Your task to perform on an android device: open the mobile data screen to see how much data has been used Image 0: 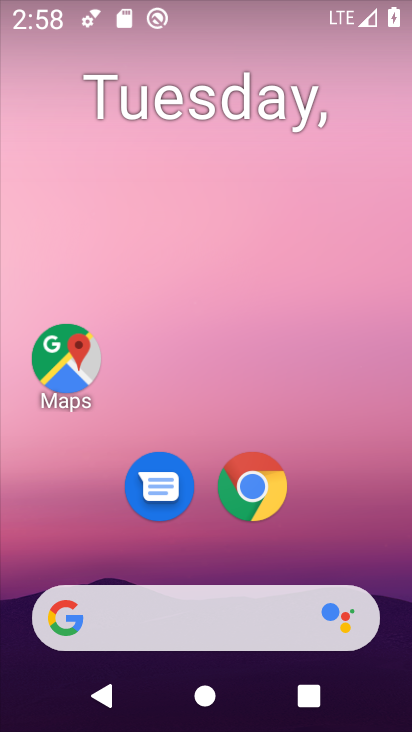
Step 0: press home button
Your task to perform on an android device: open the mobile data screen to see how much data has been used Image 1: 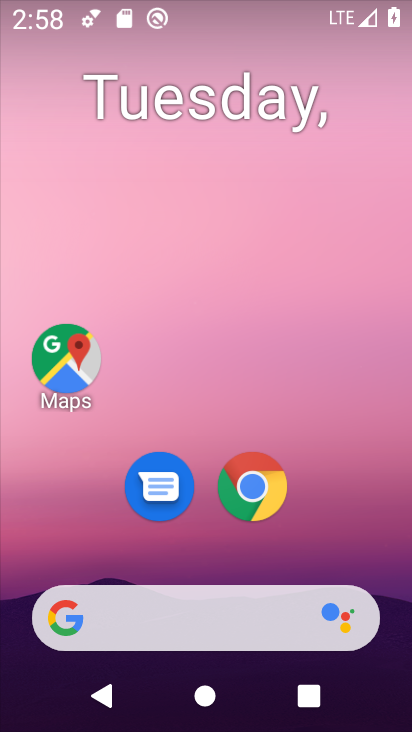
Step 1: drag from (336, 529) to (355, 70)
Your task to perform on an android device: open the mobile data screen to see how much data has been used Image 2: 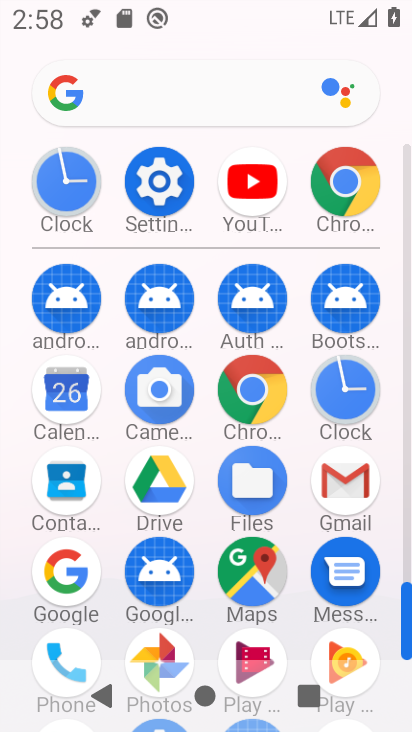
Step 2: click (168, 193)
Your task to perform on an android device: open the mobile data screen to see how much data has been used Image 3: 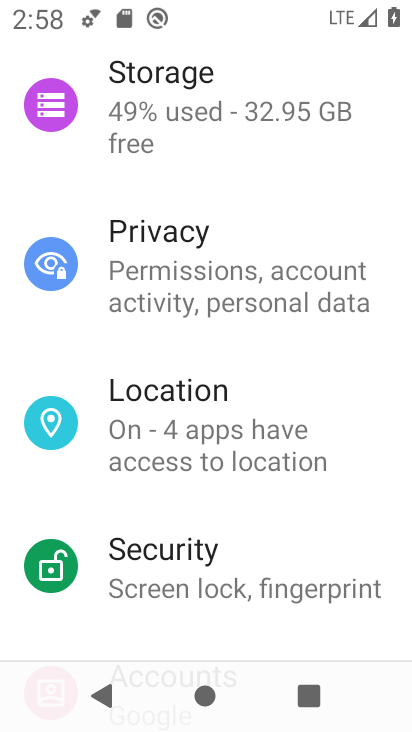
Step 3: drag from (353, 189) to (359, 335)
Your task to perform on an android device: open the mobile data screen to see how much data has been used Image 4: 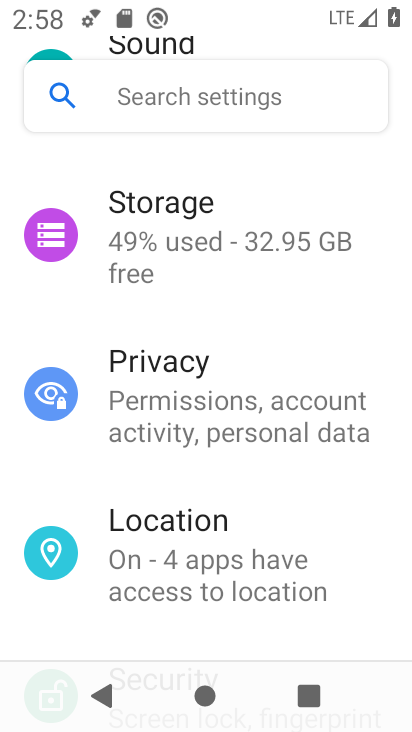
Step 4: drag from (359, 199) to (367, 363)
Your task to perform on an android device: open the mobile data screen to see how much data has been used Image 5: 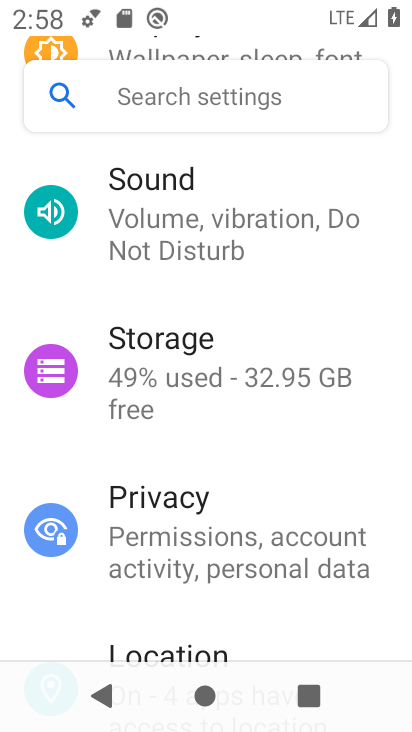
Step 5: drag from (377, 177) to (378, 341)
Your task to perform on an android device: open the mobile data screen to see how much data has been used Image 6: 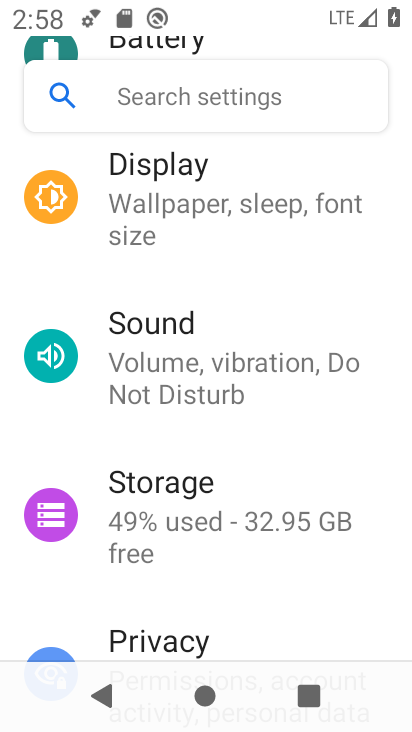
Step 6: drag from (376, 174) to (376, 329)
Your task to perform on an android device: open the mobile data screen to see how much data has been used Image 7: 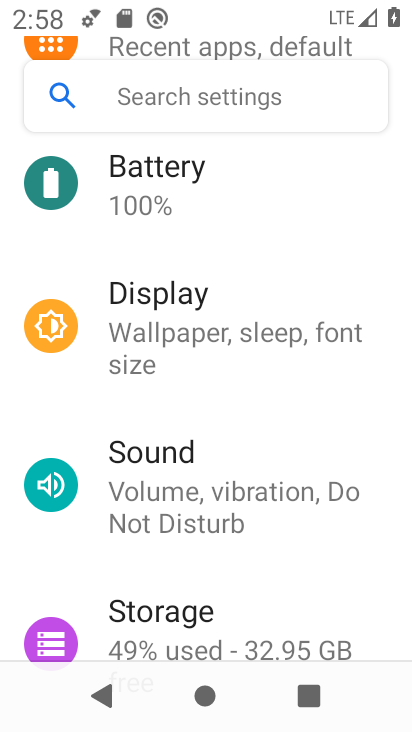
Step 7: drag from (363, 187) to (367, 356)
Your task to perform on an android device: open the mobile data screen to see how much data has been used Image 8: 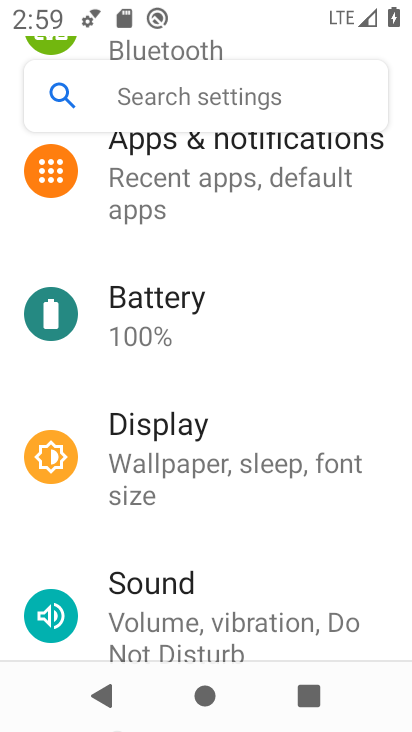
Step 8: drag from (333, 241) to (335, 376)
Your task to perform on an android device: open the mobile data screen to see how much data has been used Image 9: 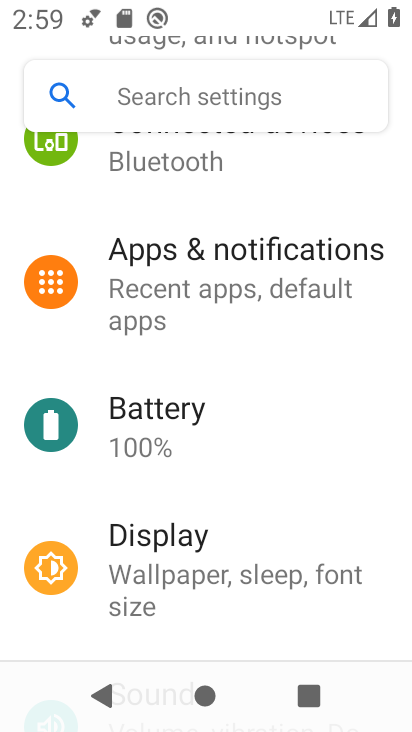
Step 9: drag from (321, 170) to (342, 305)
Your task to perform on an android device: open the mobile data screen to see how much data has been used Image 10: 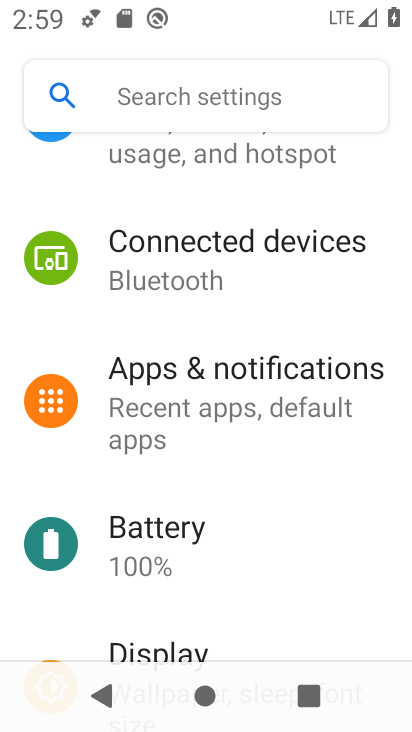
Step 10: drag from (362, 161) to (369, 323)
Your task to perform on an android device: open the mobile data screen to see how much data has been used Image 11: 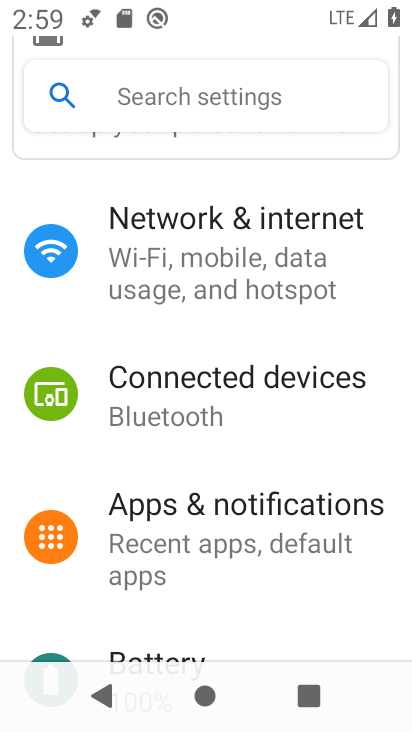
Step 11: click (210, 248)
Your task to perform on an android device: open the mobile data screen to see how much data has been used Image 12: 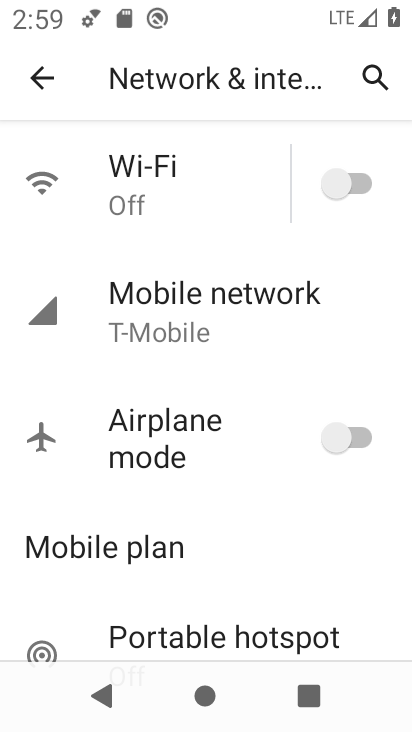
Step 12: click (196, 300)
Your task to perform on an android device: open the mobile data screen to see how much data has been used Image 13: 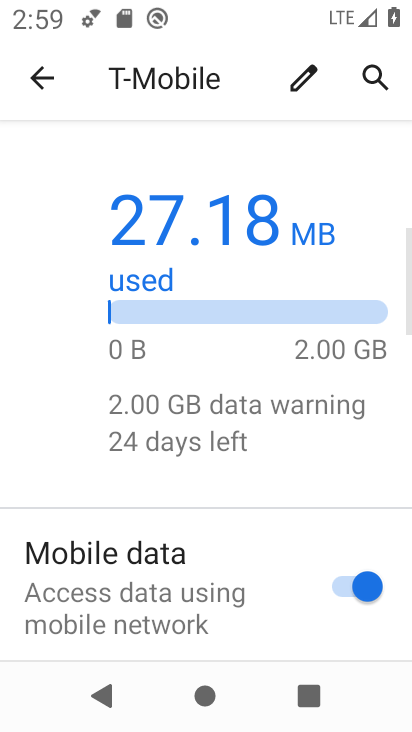
Step 13: drag from (243, 491) to (242, 382)
Your task to perform on an android device: open the mobile data screen to see how much data has been used Image 14: 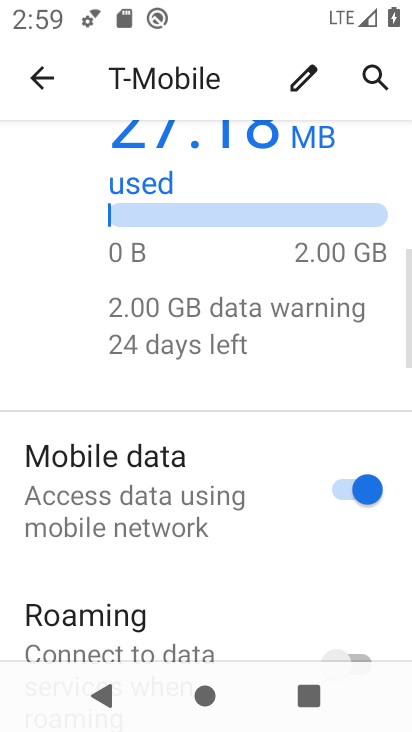
Step 14: drag from (242, 489) to (239, 428)
Your task to perform on an android device: open the mobile data screen to see how much data has been used Image 15: 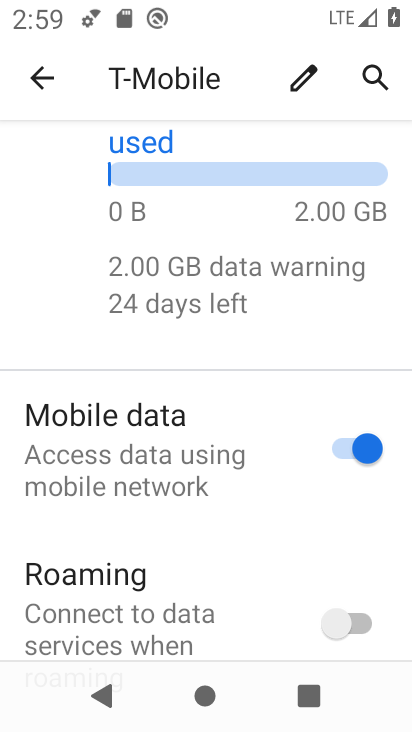
Step 15: drag from (232, 558) to (236, 375)
Your task to perform on an android device: open the mobile data screen to see how much data has been used Image 16: 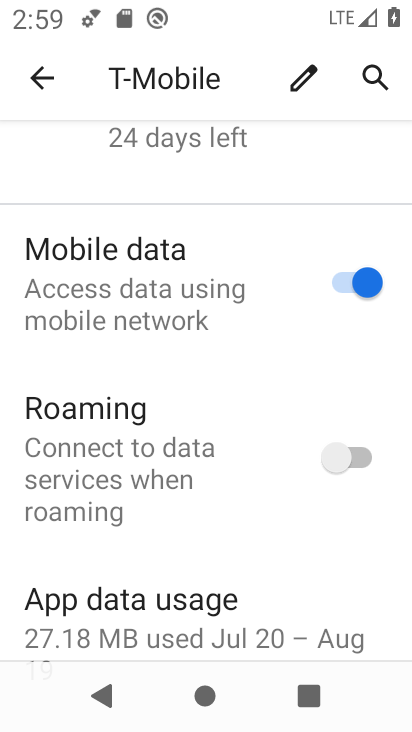
Step 16: drag from (229, 563) to (220, 360)
Your task to perform on an android device: open the mobile data screen to see how much data has been used Image 17: 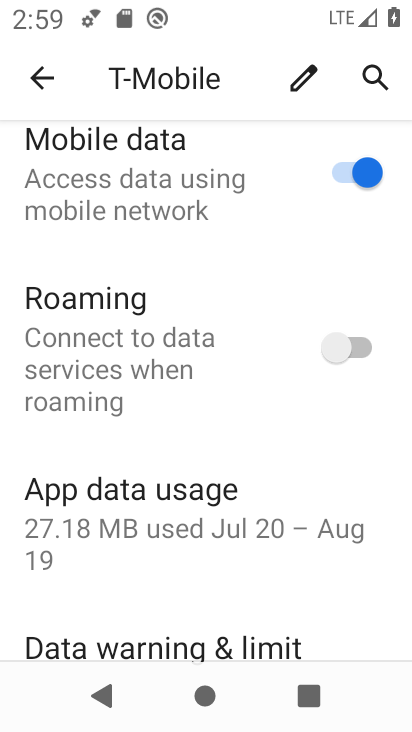
Step 17: click (219, 534)
Your task to perform on an android device: open the mobile data screen to see how much data has been used Image 18: 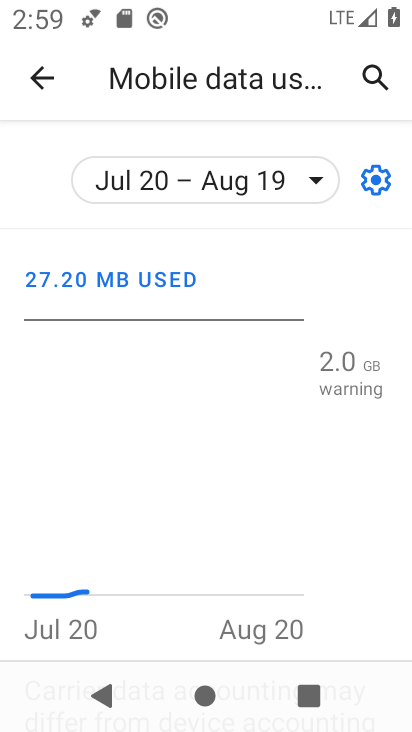
Step 18: task complete